Your task to perform on an android device: Is it going to rain this weekend? Image 0: 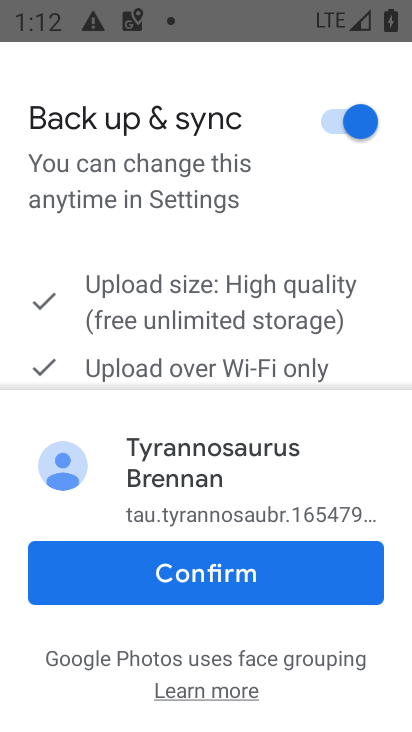
Step 0: press home button
Your task to perform on an android device: Is it going to rain this weekend? Image 1: 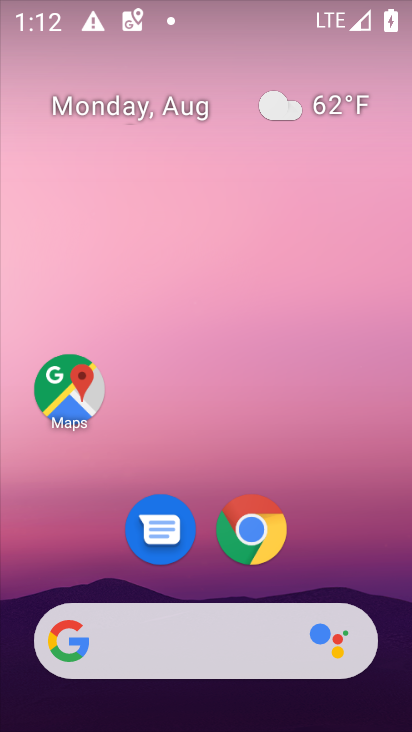
Step 1: drag from (232, 604) to (211, 302)
Your task to perform on an android device: Is it going to rain this weekend? Image 2: 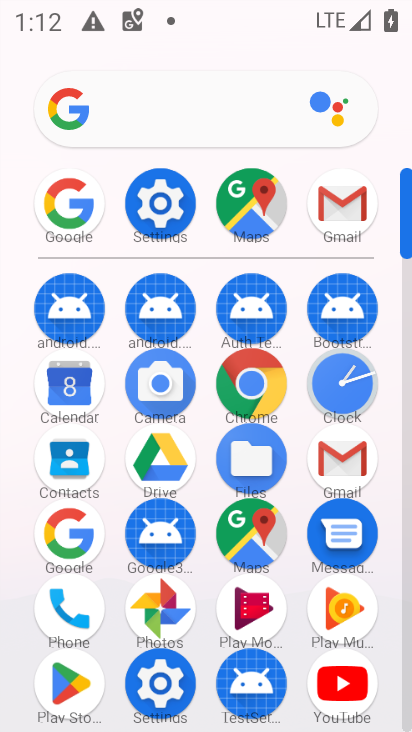
Step 2: click (75, 532)
Your task to perform on an android device: Is it going to rain this weekend? Image 3: 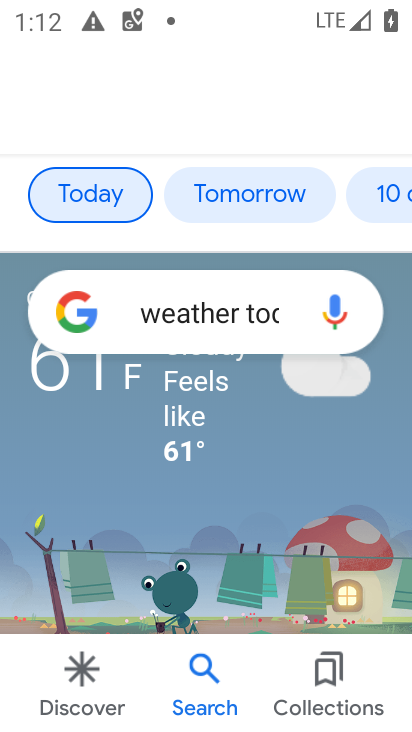
Step 3: click (235, 331)
Your task to perform on an android device: Is it going to rain this weekend? Image 4: 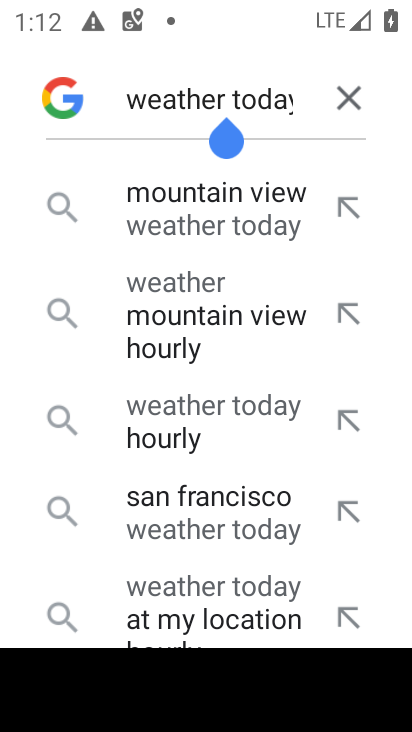
Step 4: click (356, 100)
Your task to perform on an android device: Is it going to rain this weekend? Image 5: 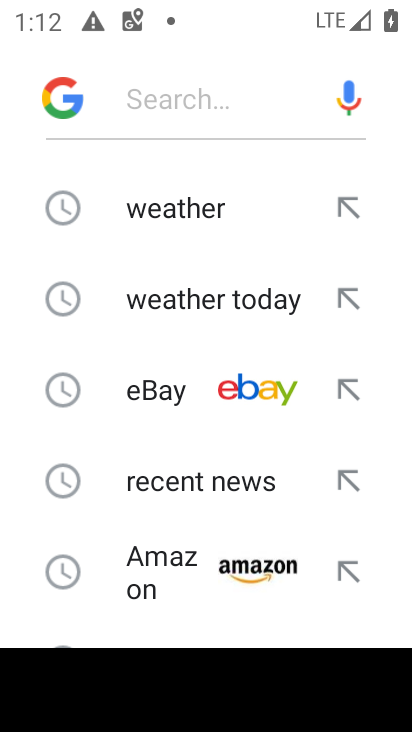
Step 5: drag from (203, 508) to (195, 251)
Your task to perform on an android device: Is it going to rain this weekend? Image 6: 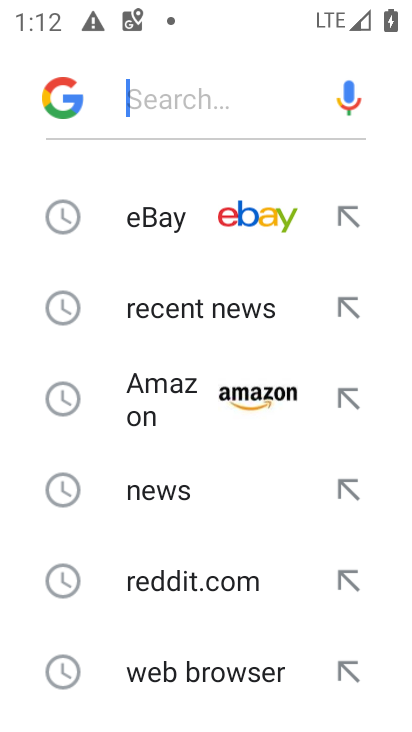
Step 6: drag from (187, 641) to (174, 368)
Your task to perform on an android device: Is it going to rain this weekend? Image 7: 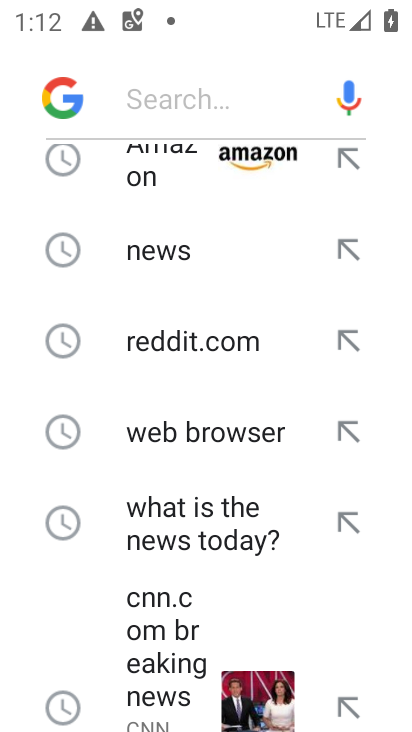
Step 7: drag from (190, 654) to (170, 430)
Your task to perform on an android device: Is it going to rain this weekend? Image 8: 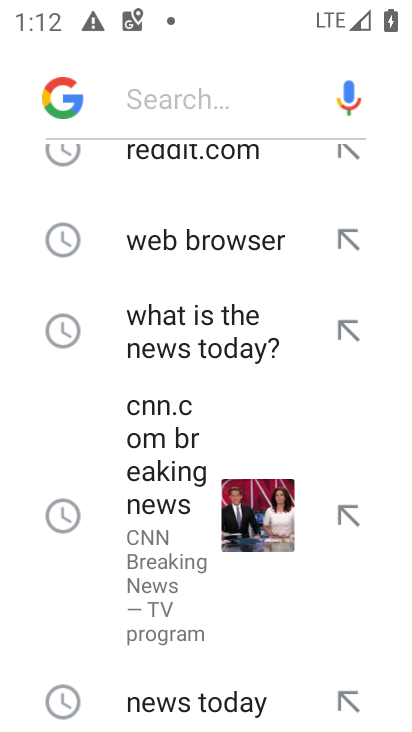
Step 8: type "Is it going to rain this weekend?"
Your task to perform on an android device: Is it going to rain this weekend? Image 9: 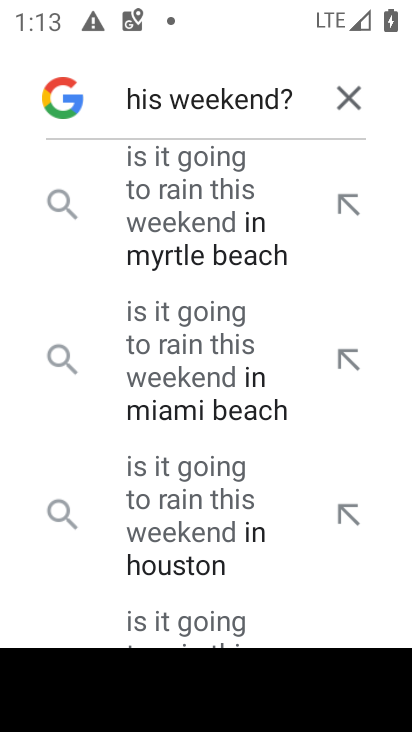
Step 9: drag from (194, 253) to (204, 564)
Your task to perform on an android device: Is it going to rain this weekend? Image 10: 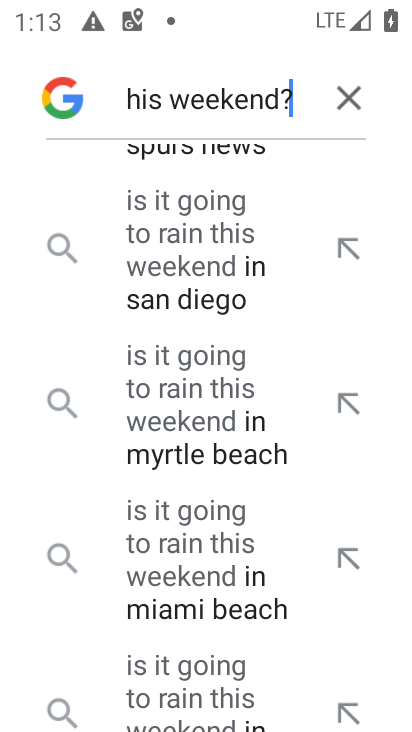
Step 10: drag from (202, 185) to (191, 614)
Your task to perform on an android device: Is it going to rain this weekend? Image 11: 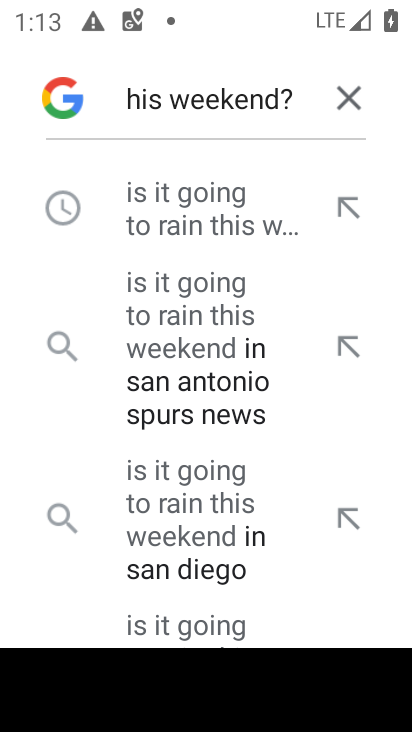
Step 11: click (177, 211)
Your task to perform on an android device: Is it going to rain this weekend? Image 12: 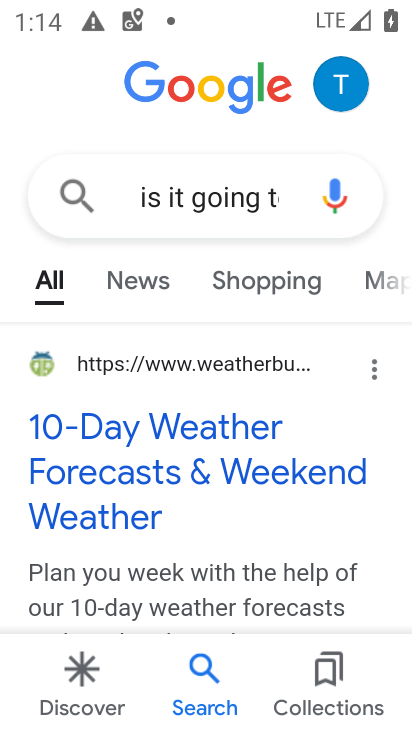
Step 12: click (202, 461)
Your task to perform on an android device: Is it going to rain this weekend? Image 13: 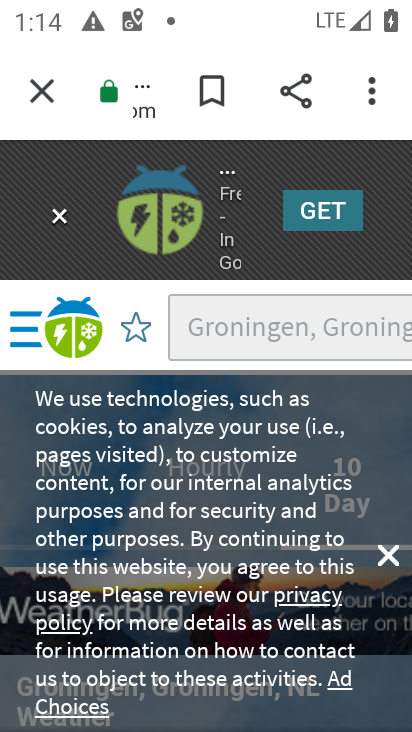
Step 13: task complete